Your task to perform on an android device: Open Yahoo.com Image 0: 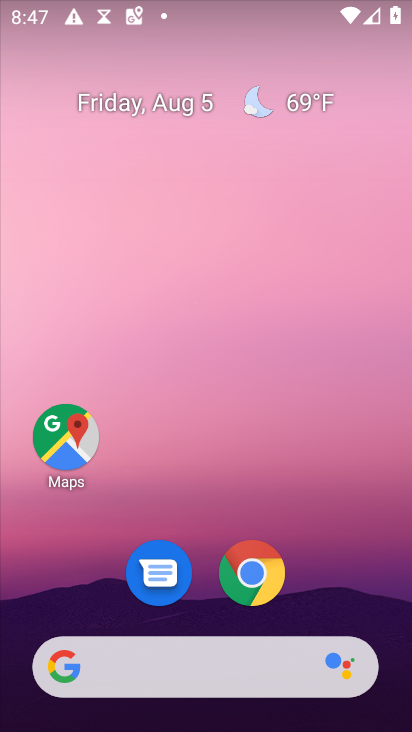
Step 0: click (254, 574)
Your task to perform on an android device: Open Yahoo.com Image 1: 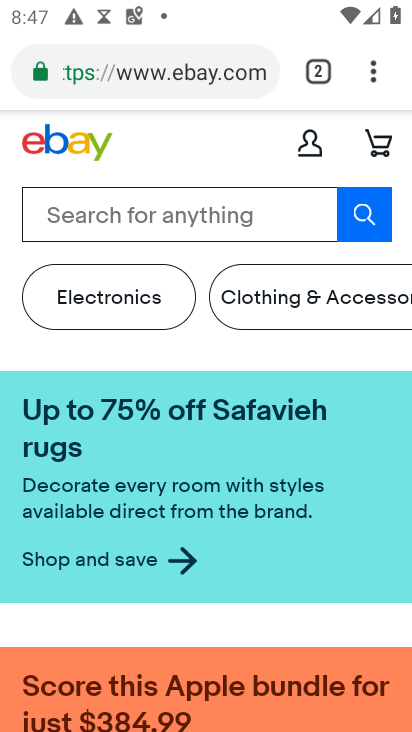
Step 1: click (243, 81)
Your task to perform on an android device: Open Yahoo.com Image 2: 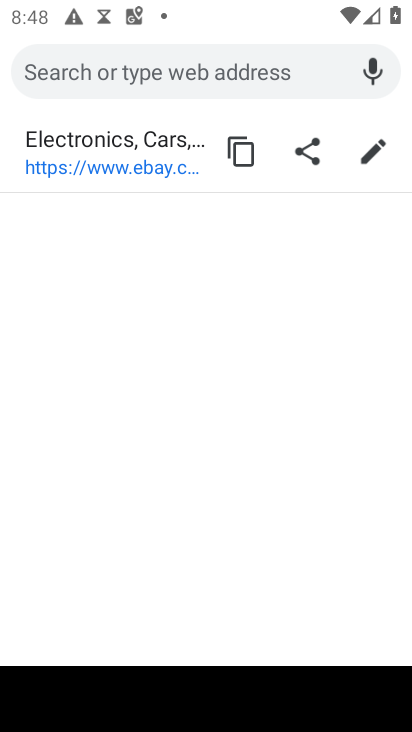
Step 2: type "Yahoo.com"
Your task to perform on an android device: Open Yahoo.com Image 3: 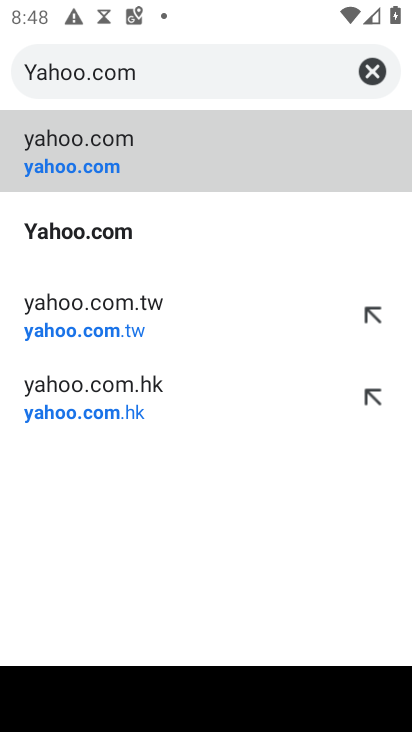
Step 3: click (114, 236)
Your task to perform on an android device: Open Yahoo.com Image 4: 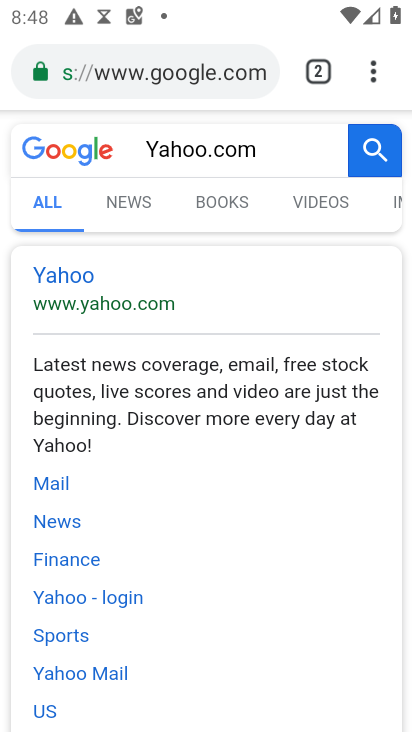
Step 4: click (114, 311)
Your task to perform on an android device: Open Yahoo.com Image 5: 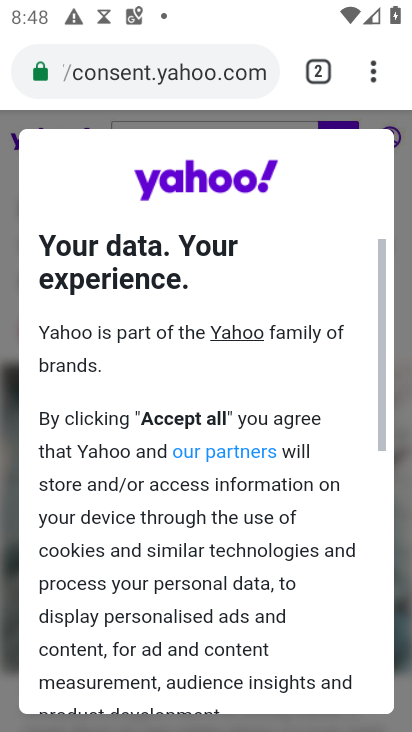
Step 5: drag from (207, 602) to (277, 406)
Your task to perform on an android device: Open Yahoo.com Image 6: 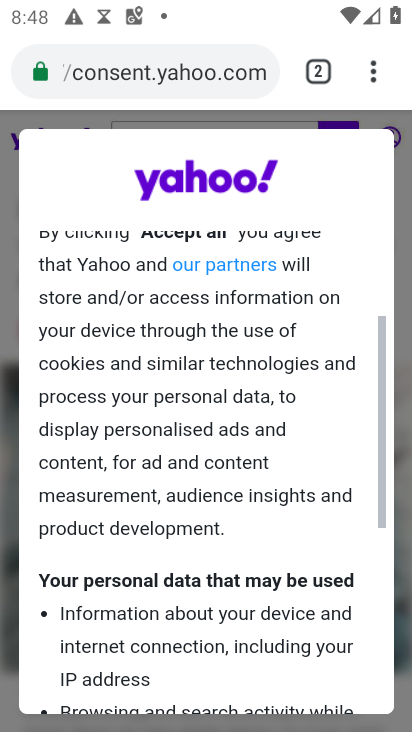
Step 6: drag from (189, 649) to (254, 341)
Your task to perform on an android device: Open Yahoo.com Image 7: 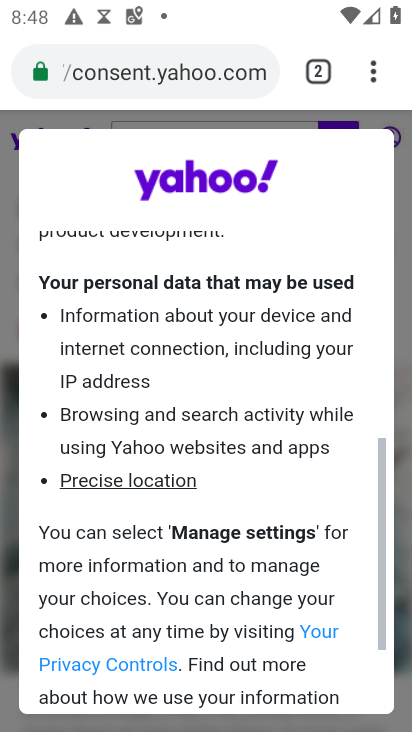
Step 7: drag from (213, 641) to (262, 342)
Your task to perform on an android device: Open Yahoo.com Image 8: 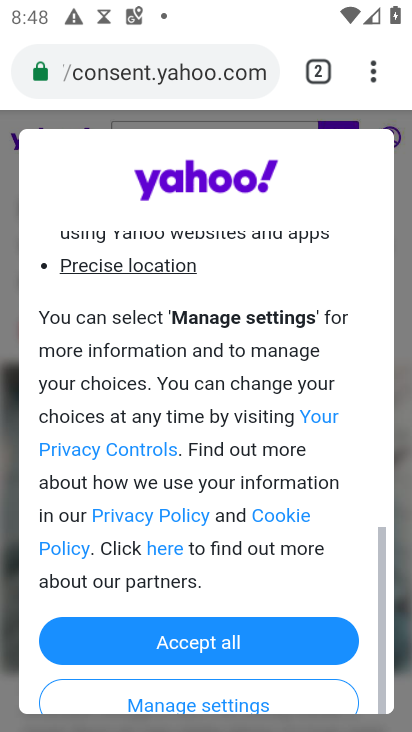
Step 8: click (207, 638)
Your task to perform on an android device: Open Yahoo.com Image 9: 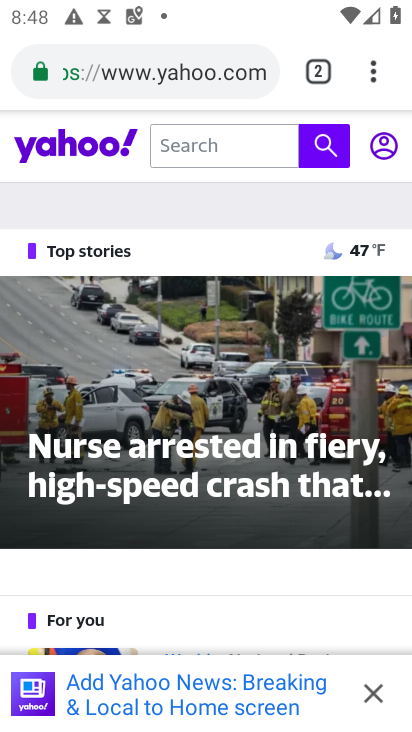
Step 9: task complete